Your task to perform on an android device: turn off translation in the chrome app Image 0: 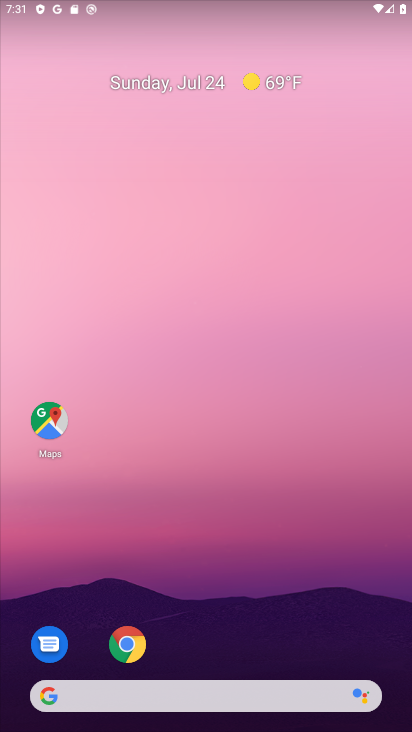
Step 0: drag from (262, 680) to (273, 177)
Your task to perform on an android device: turn off translation in the chrome app Image 1: 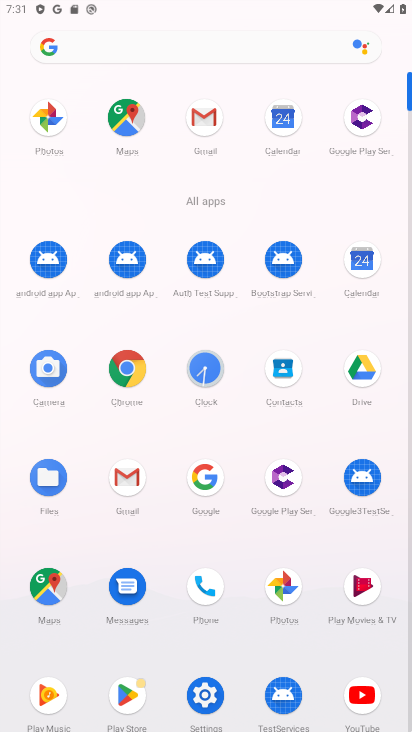
Step 1: click (117, 369)
Your task to perform on an android device: turn off translation in the chrome app Image 2: 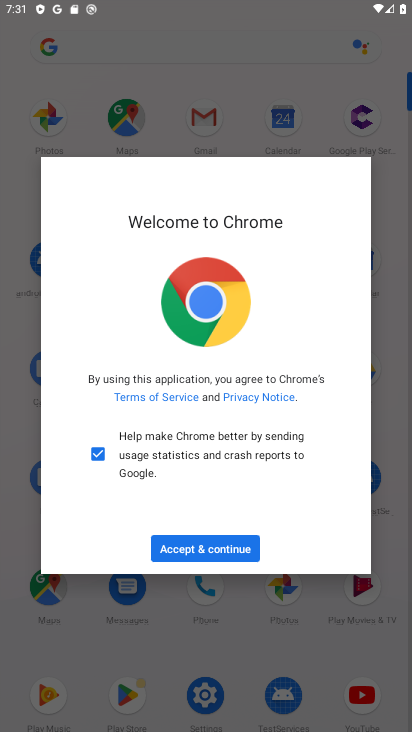
Step 2: click (186, 550)
Your task to perform on an android device: turn off translation in the chrome app Image 3: 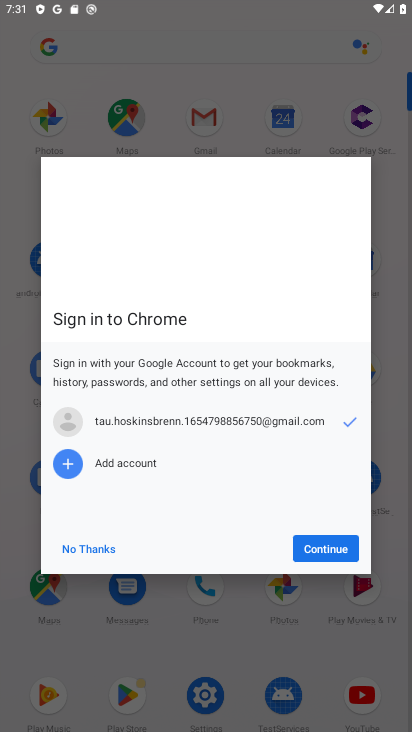
Step 3: click (317, 544)
Your task to perform on an android device: turn off translation in the chrome app Image 4: 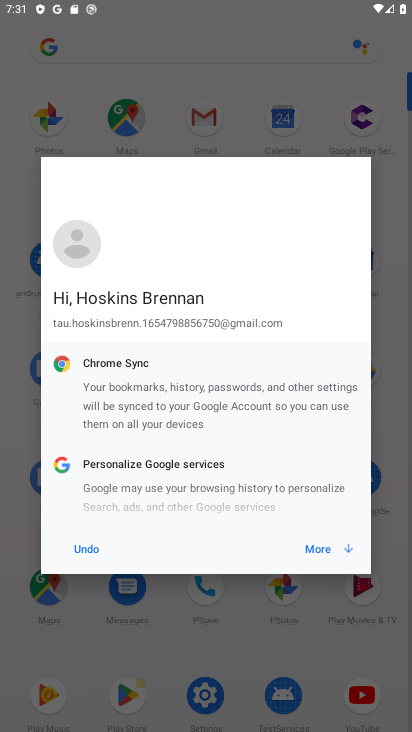
Step 4: click (310, 547)
Your task to perform on an android device: turn off translation in the chrome app Image 5: 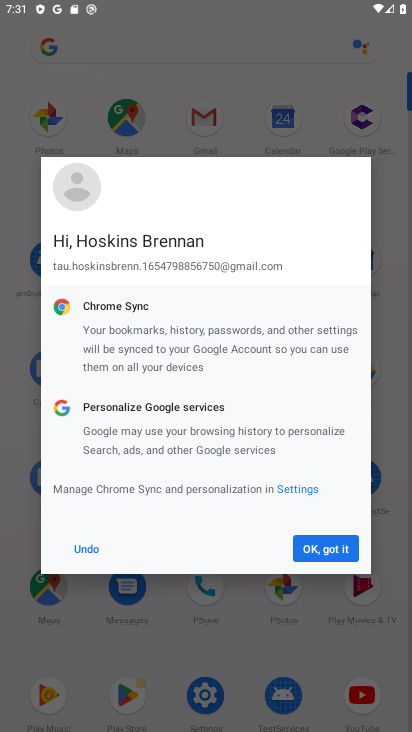
Step 5: click (310, 547)
Your task to perform on an android device: turn off translation in the chrome app Image 6: 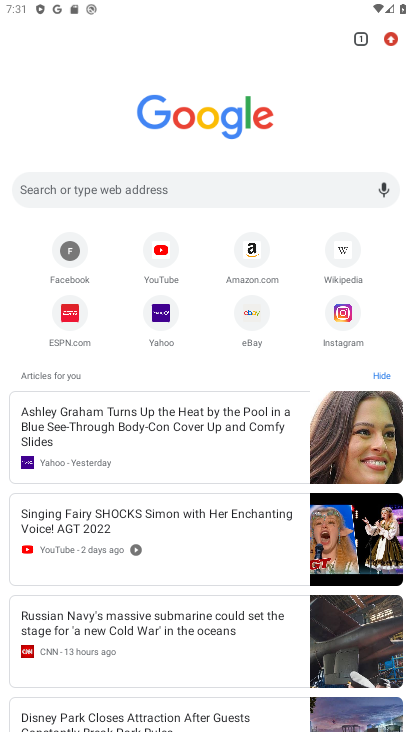
Step 6: click (389, 33)
Your task to perform on an android device: turn off translation in the chrome app Image 7: 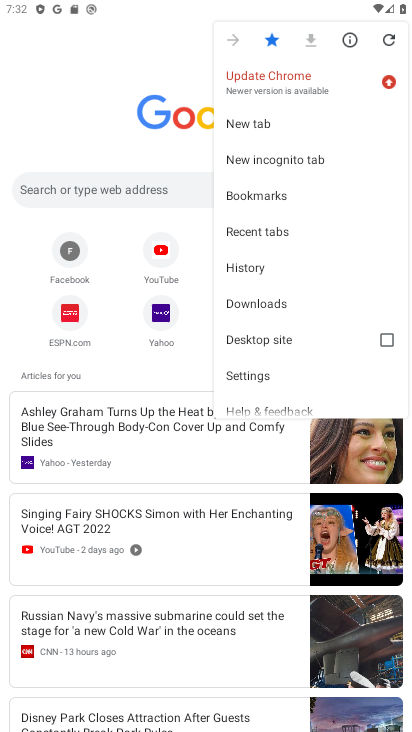
Step 7: click (240, 375)
Your task to perform on an android device: turn off translation in the chrome app Image 8: 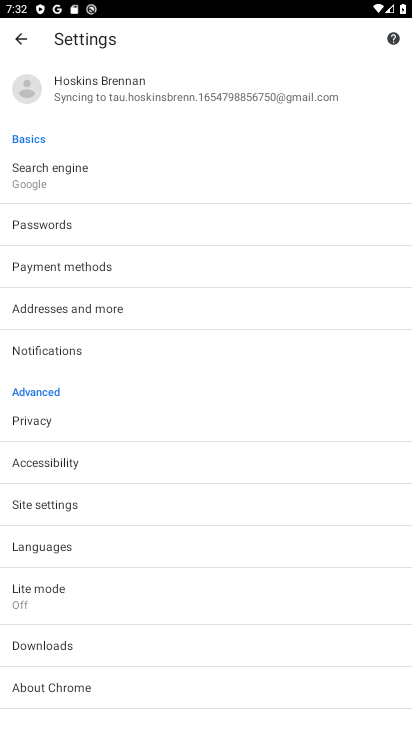
Step 8: click (32, 545)
Your task to perform on an android device: turn off translation in the chrome app Image 9: 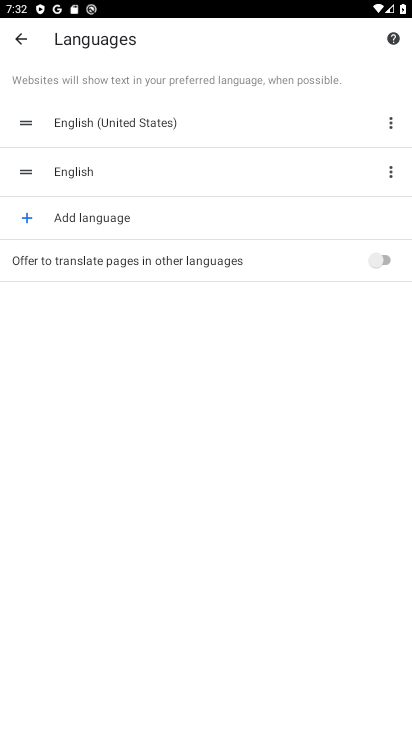
Step 9: task complete